Your task to perform on an android device: Search for vegetarian restaurants on Maps Image 0: 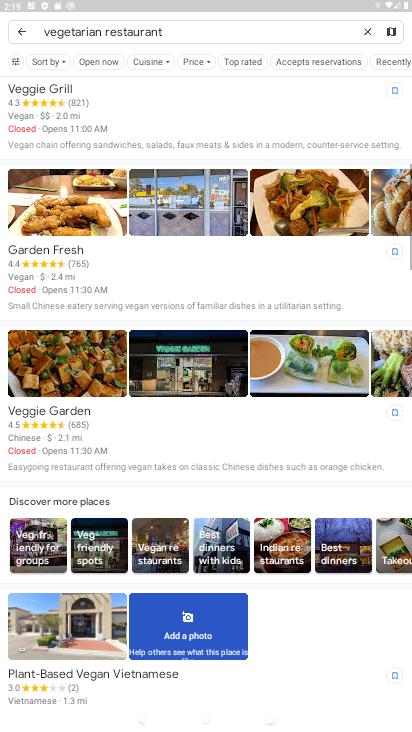
Step 0: press home button
Your task to perform on an android device: Search for vegetarian restaurants on Maps Image 1: 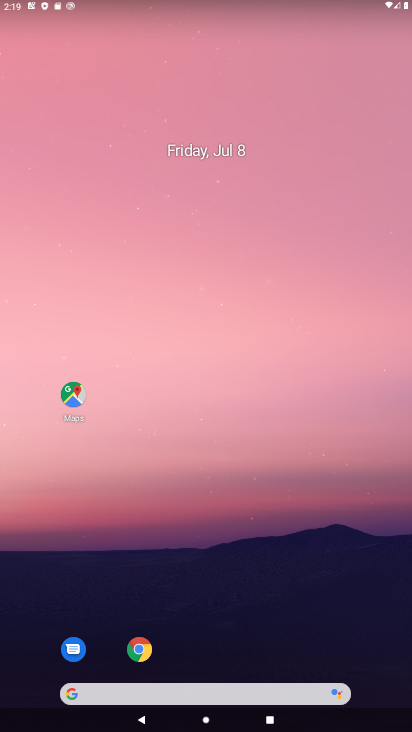
Step 1: click (74, 397)
Your task to perform on an android device: Search for vegetarian restaurants on Maps Image 2: 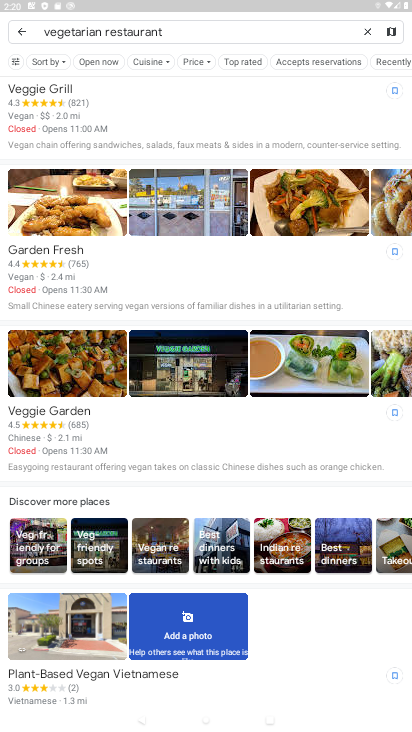
Step 2: task complete